Your task to perform on an android device: turn off priority inbox in the gmail app Image 0: 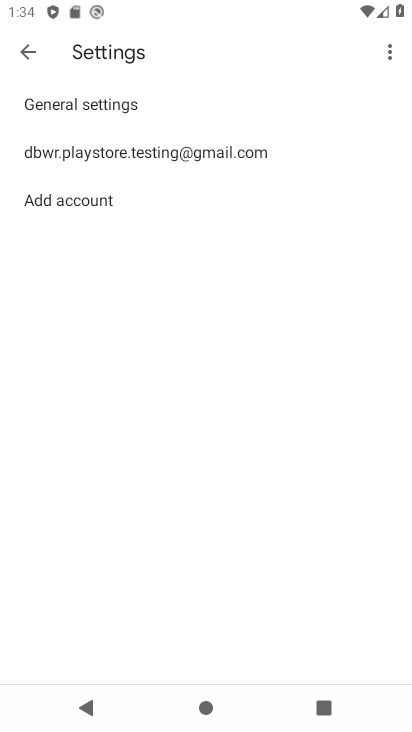
Step 0: press home button
Your task to perform on an android device: turn off priority inbox in the gmail app Image 1: 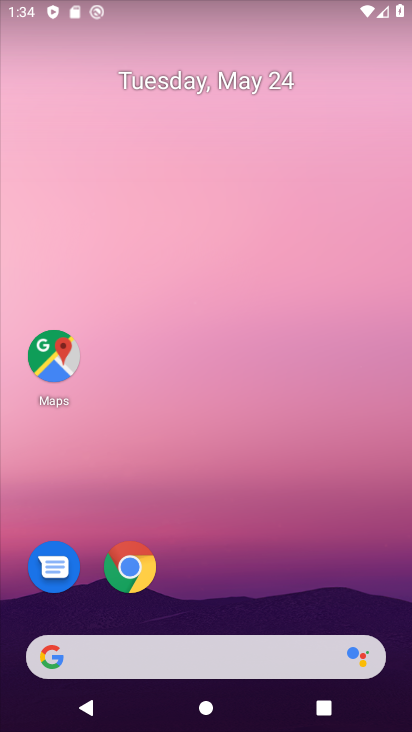
Step 1: drag from (229, 616) to (273, 386)
Your task to perform on an android device: turn off priority inbox in the gmail app Image 2: 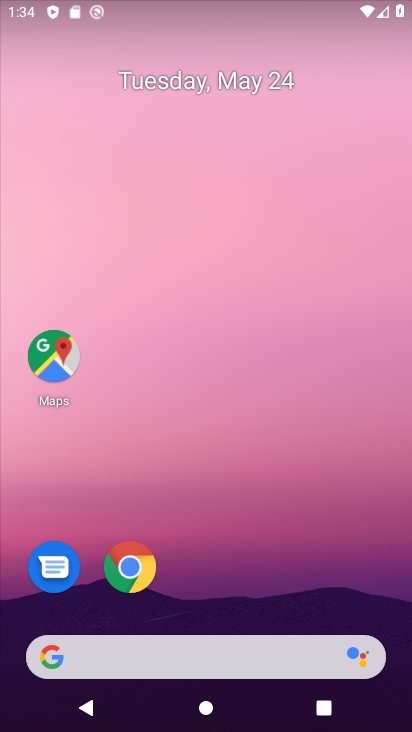
Step 2: drag from (254, 629) to (343, 18)
Your task to perform on an android device: turn off priority inbox in the gmail app Image 3: 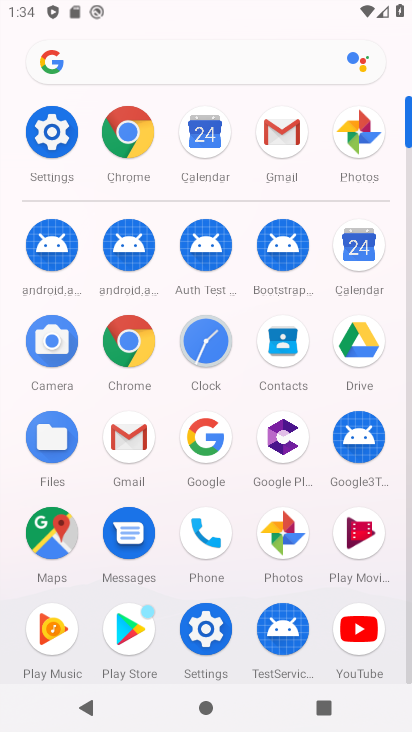
Step 3: click (137, 433)
Your task to perform on an android device: turn off priority inbox in the gmail app Image 4: 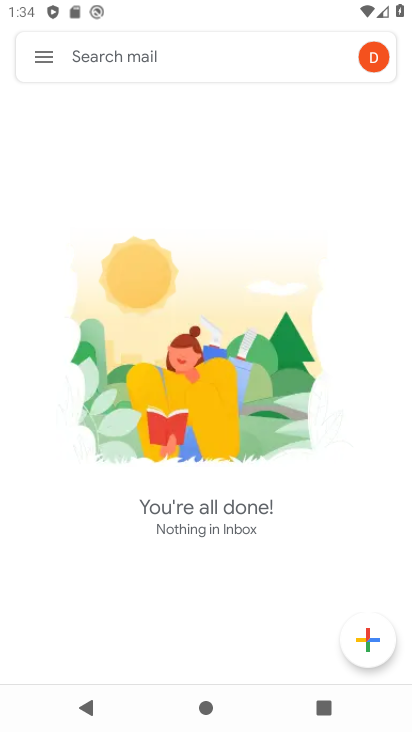
Step 4: click (36, 53)
Your task to perform on an android device: turn off priority inbox in the gmail app Image 5: 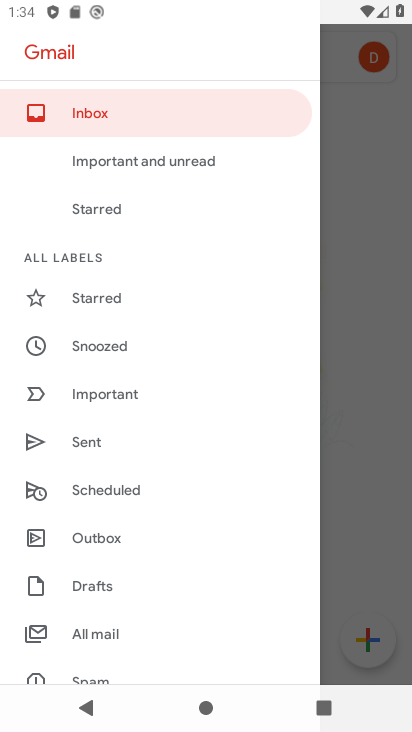
Step 5: drag from (97, 602) to (148, 317)
Your task to perform on an android device: turn off priority inbox in the gmail app Image 6: 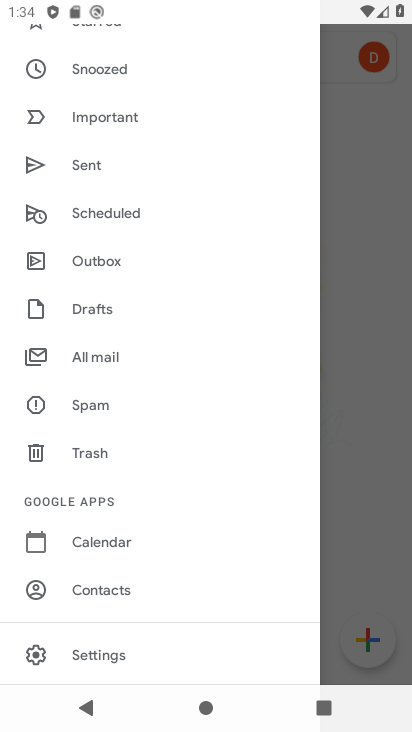
Step 6: drag from (130, 592) to (162, 386)
Your task to perform on an android device: turn off priority inbox in the gmail app Image 7: 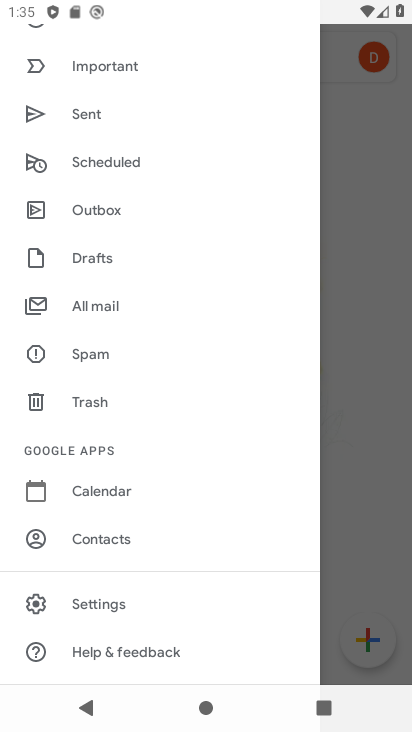
Step 7: click (104, 602)
Your task to perform on an android device: turn off priority inbox in the gmail app Image 8: 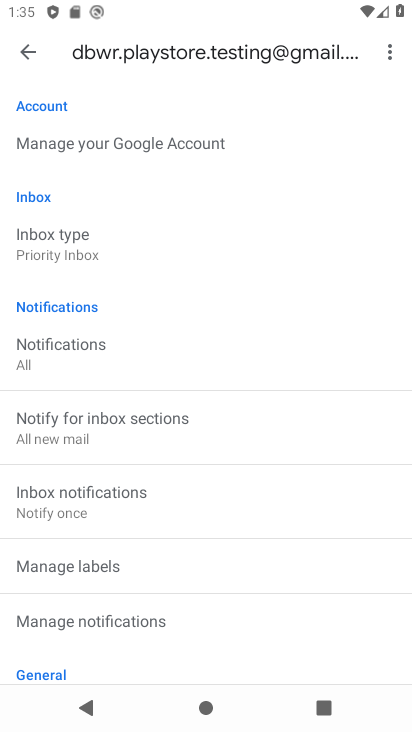
Step 8: click (79, 247)
Your task to perform on an android device: turn off priority inbox in the gmail app Image 9: 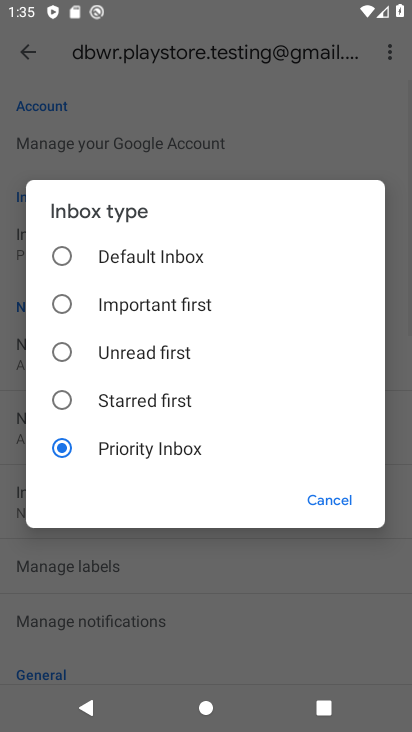
Step 9: click (135, 253)
Your task to perform on an android device: turn off priority inbox in the gmail app Image 10: 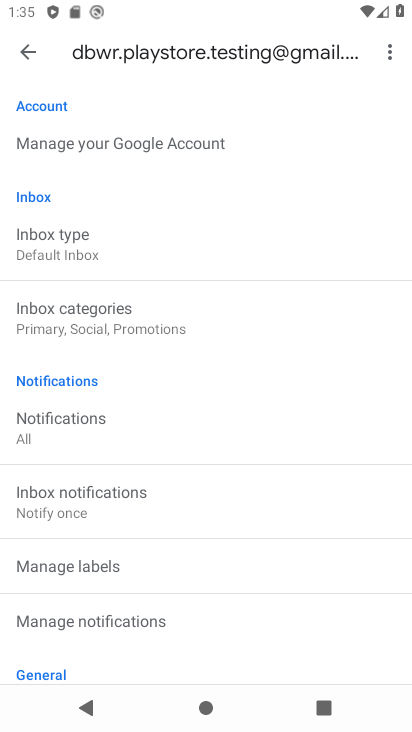
Step 10: task complete